Your task to perform on an android device: Find coffee shops on Maps Image 0: 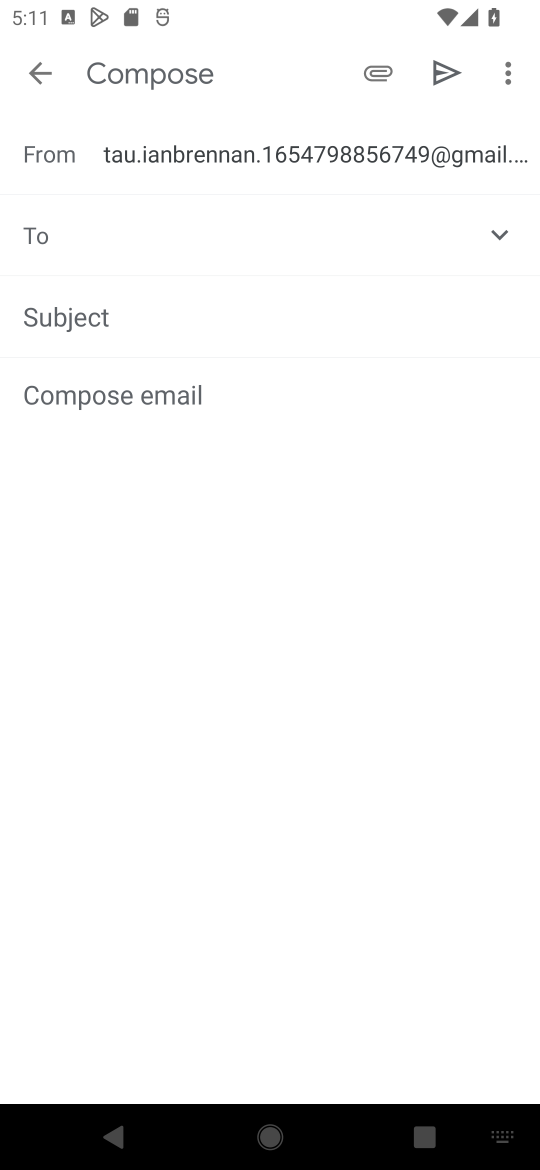
Step 0: press home button
Your task to perform on an android device: Find coffee shops on Maps Image 1: 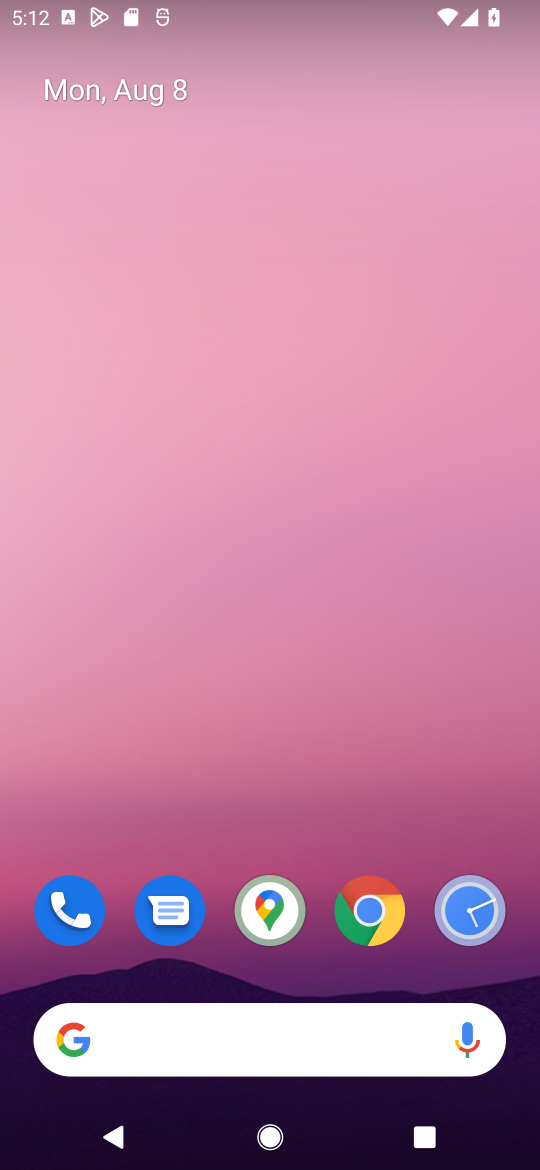
Step 1: click (260, 908)
Your task to perform on an android device: Find coffee shops on Maps Image 2: 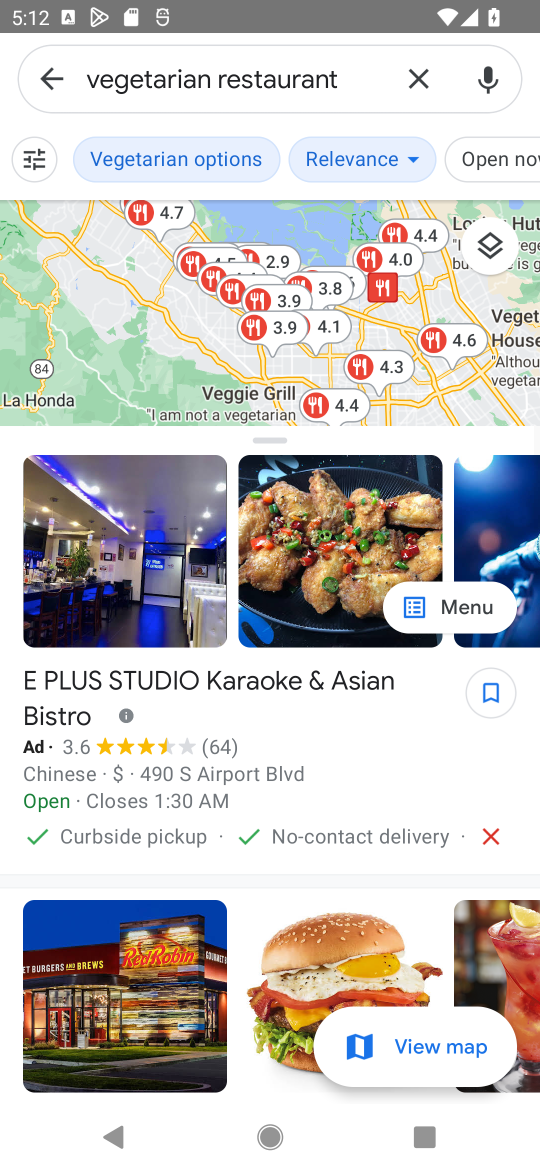
Step 2: click (419, 79)
Your task to perform on an android device: Find coffee shops on Maps Image 3: 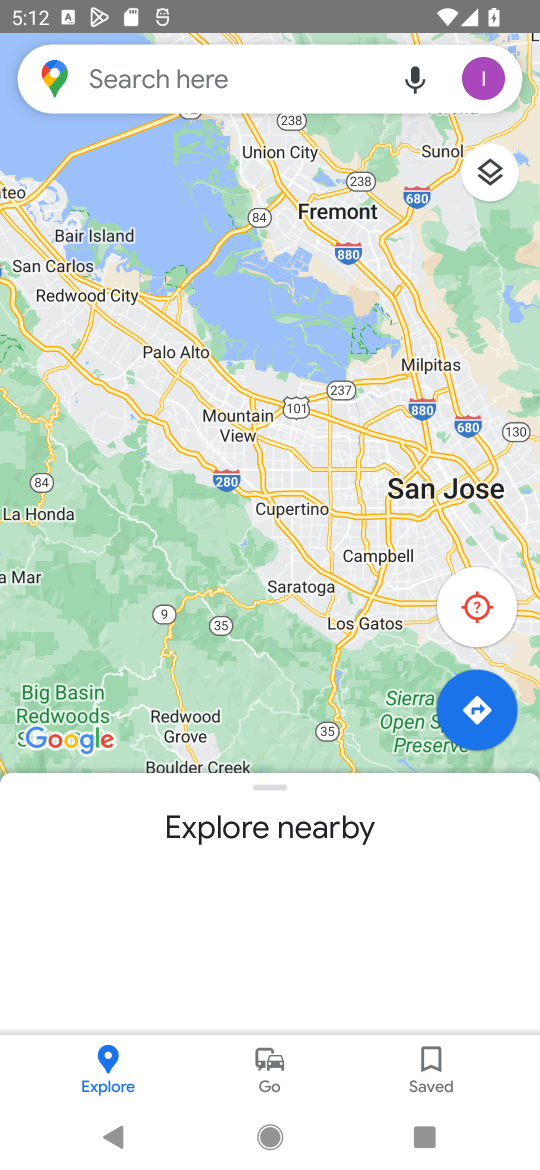
Step 3: click (289, 81)
Your task to perform on an android device: Find coffee shops on Maps Image 4: 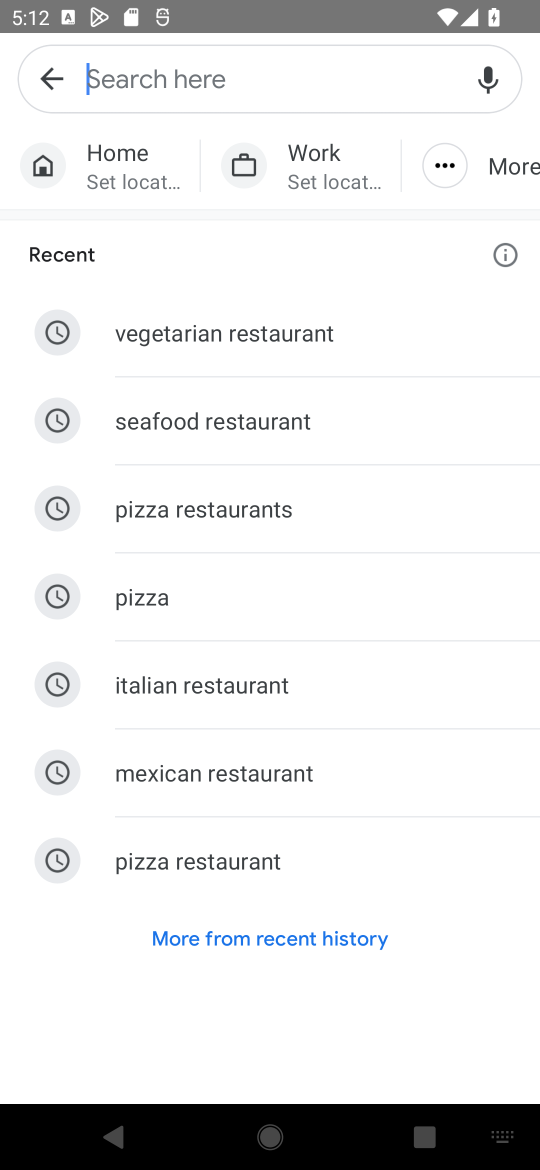
Step 4: type "coffee"
Your task to perform on an android device: Find coffee shops on Maps Image 5: 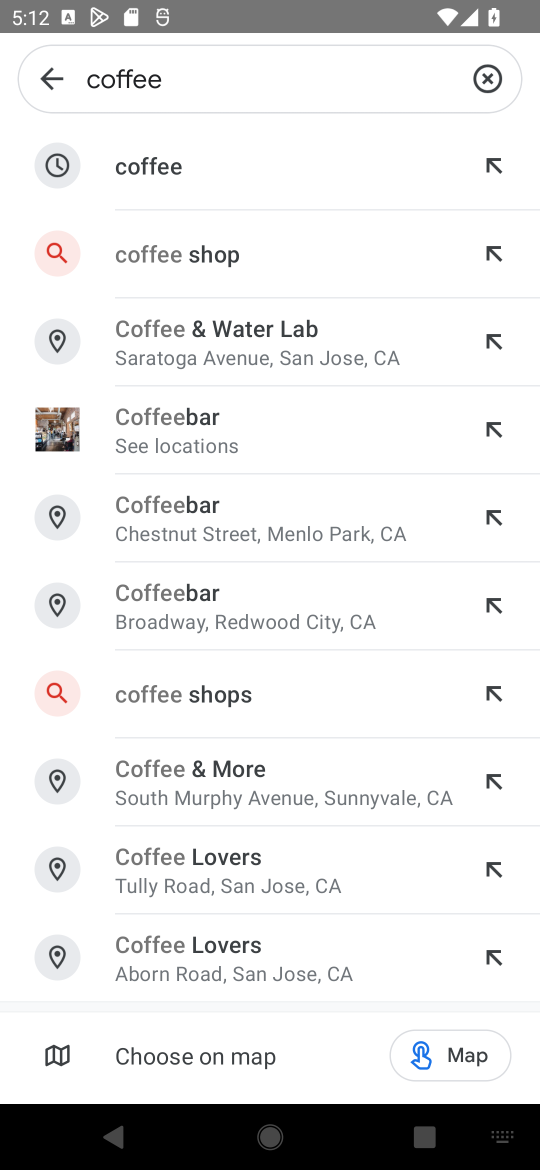
Step 5: click (197, 245)
Your task to perform on an android device: Find coffee shops on Maps Image 6: 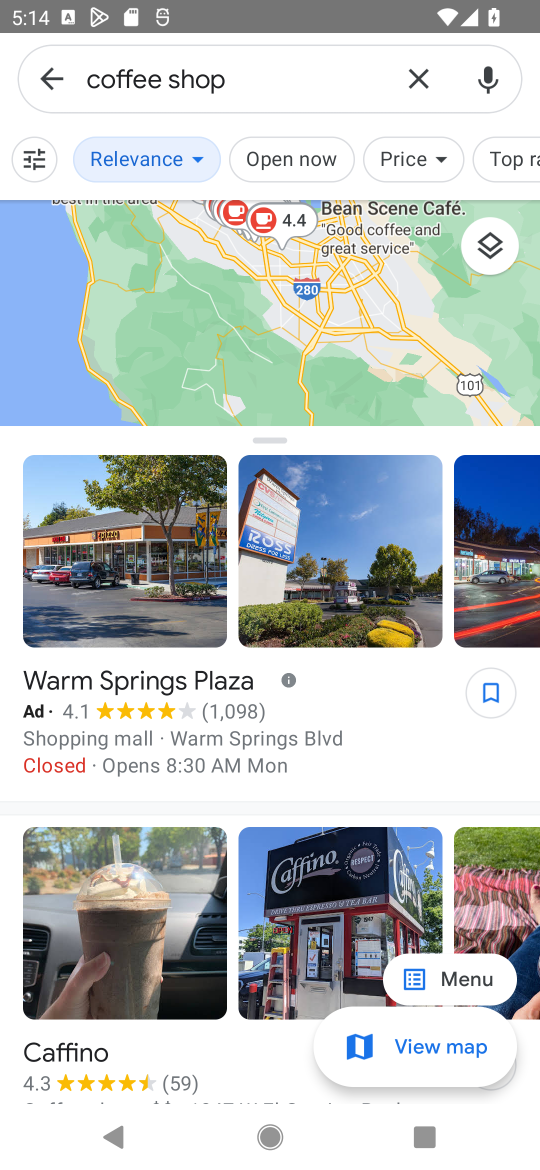
Step 6: task complete